Your task to perform on an android device: turn off wifi Image 0: 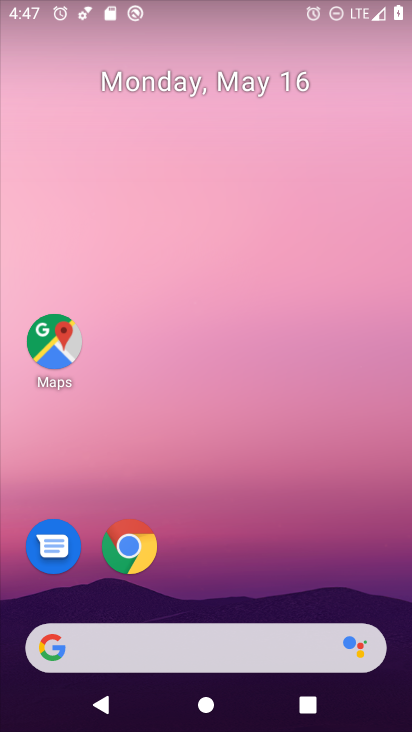
Step 0: drag from (369, 580) to (372, 100)
Your task to perform on an android device: turn off wifi Image 1: 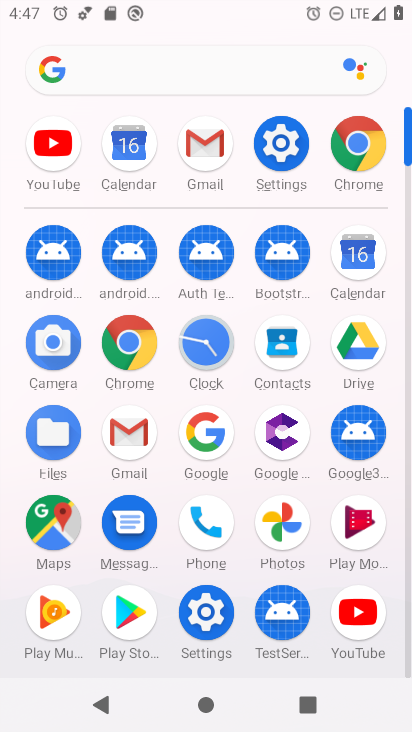
Step 1: click (210, 608)
Your task to perform on an android device: turn off wifi Image 2: 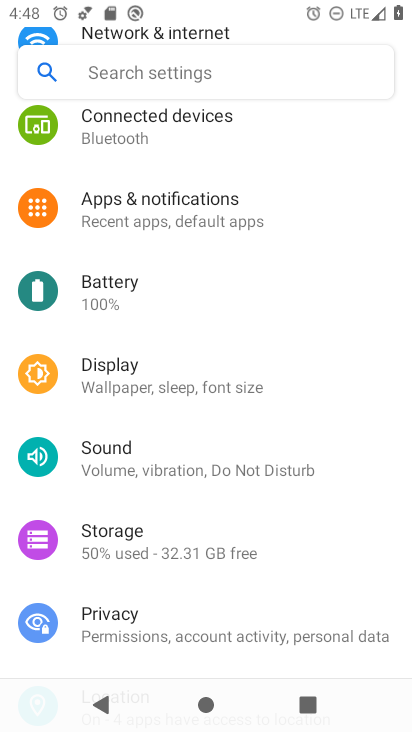
Step 2: drag from (364, 583) to (382, 247)
Your task to perform on an android device: turn off wifi Image 3: 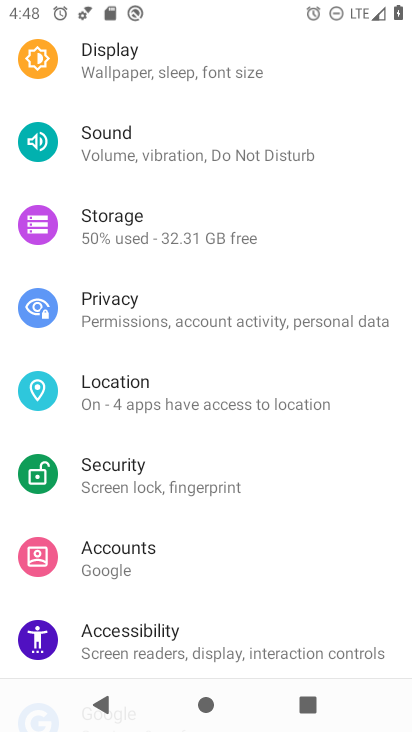
Step 3: drag from (327, 580) to (346, 383)
Your task to perform on an android device: turn off wifi Image 4: 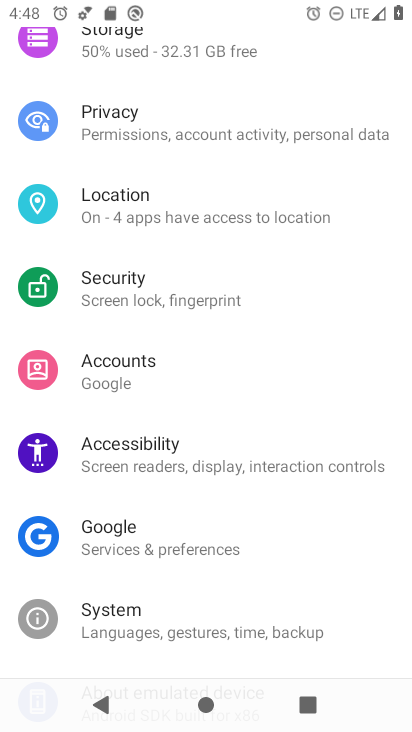
Step 4: drag from (340, 614) to (332, 339)
Your task to perform on an android device: turn off wifi Image 5: 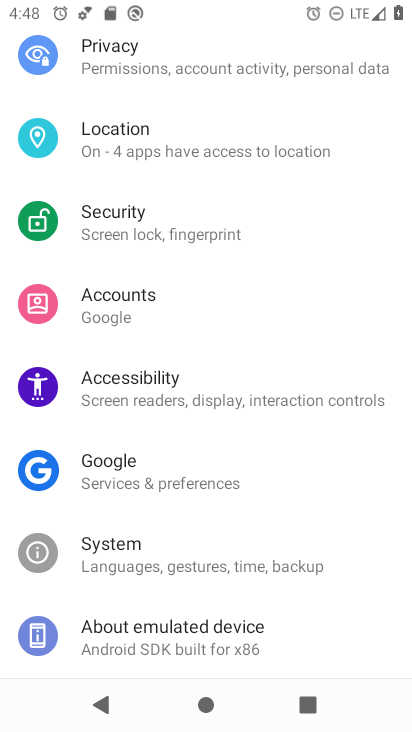
Step 5: drag from (350, 271) to (364, 431)
Your task to perform on an android device: turn off wifi Image 6: 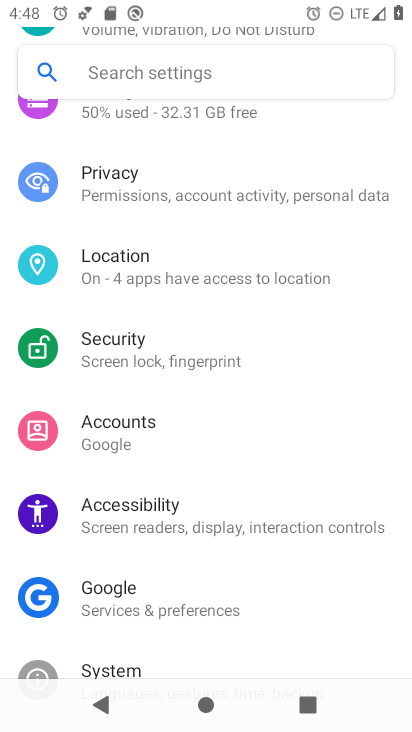
Step 6: drag from (372, 246) to (348, 470)
Your task to perform on an android device: turn off wifi Image 7: 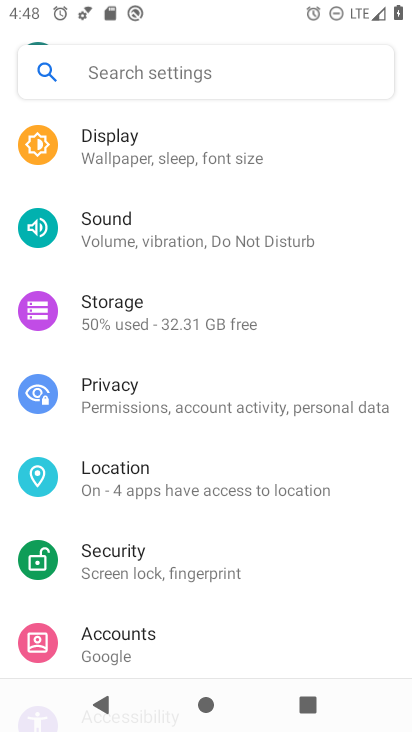
Step 7: drag from (330, 229) to (343, 403)
Your task to perform on an android device: turn off wifi Image 8: 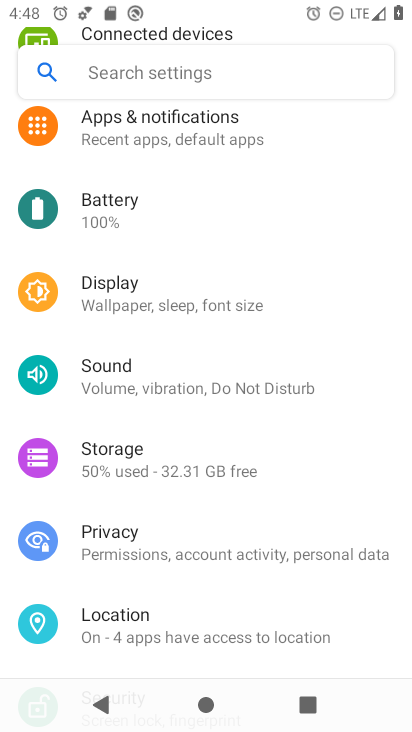
Step 8: drag from (337, 206) to (340, 361)
Your task to perform on an android device: turn off wifi Image 9: 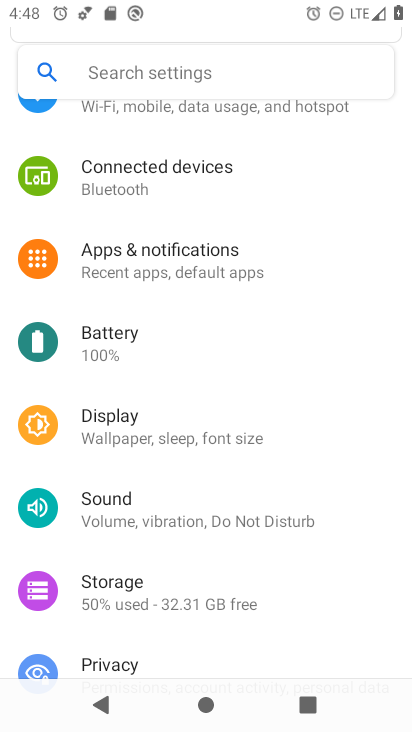
Step 9: drag from (324, 180) to (321, 428)
Your task to perform on an android device: turn off wifi Image 10: 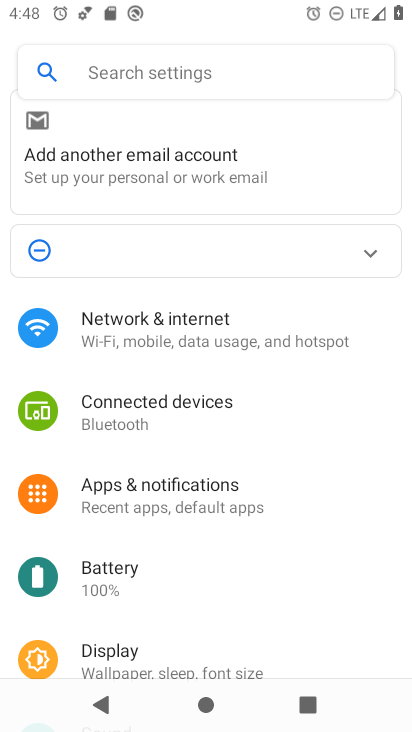
Step 10: click (265, 342)
Your task to perform on an android device: turn off wifi Image 11: 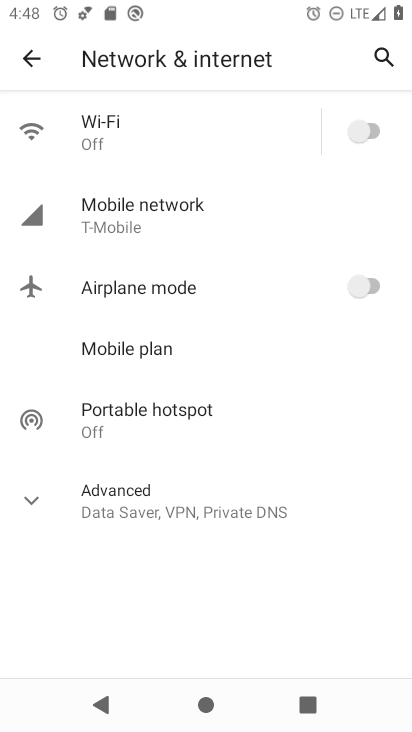
Step 11: task complete